Your task to perform on an android device: turn on translation in the chrome app Image 0: 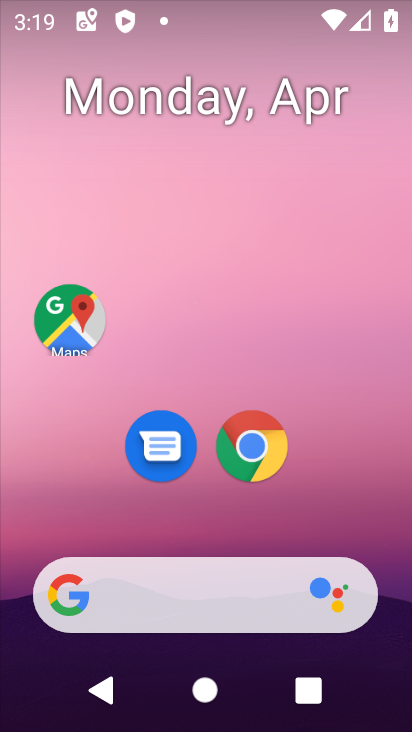
Step 0: drag from (384, 589) to (284, 43)
Your task to perform on an android device: turn on translation in the chrome app Image 1: 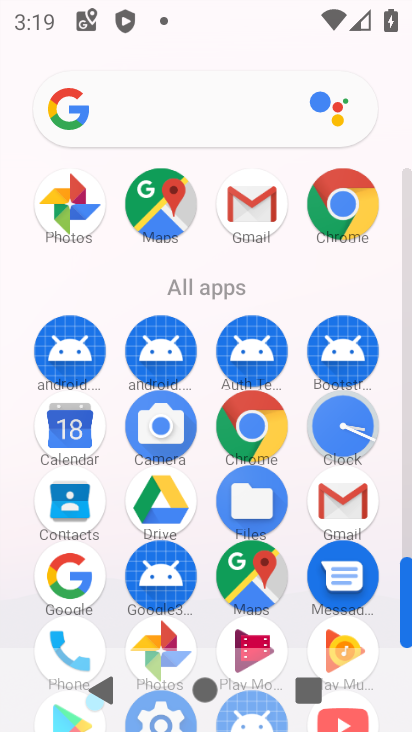
Step 1: click (247, 423)
Your task to perform on an android device: turn on translation in the chrome app Image 2: 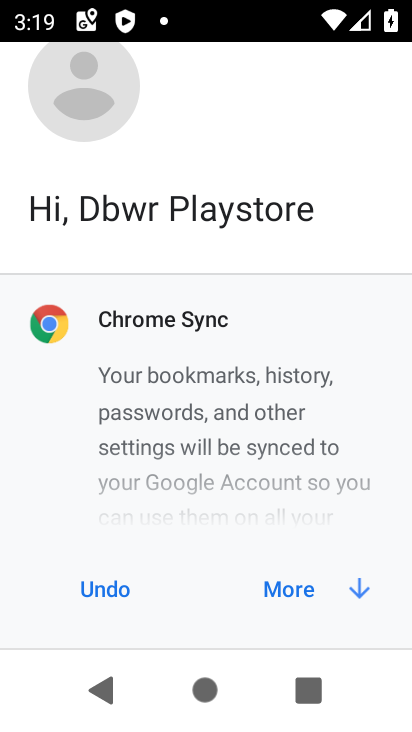
Step 2: click (302, 591)
Your task to perform on an android device: turn on translation in the chrome app Image 3: 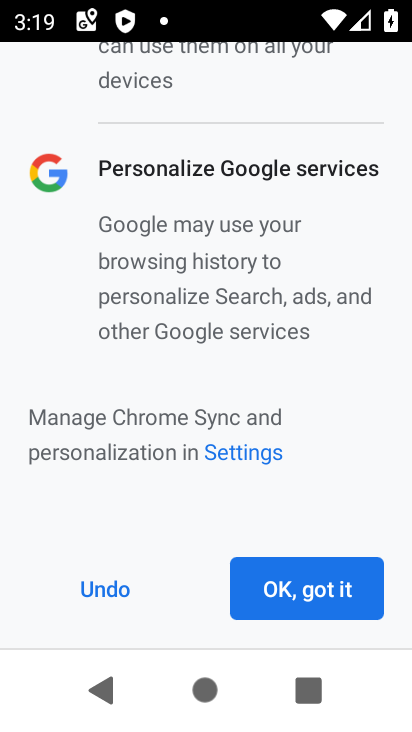
Step 3: click (302, 591)
Your task to perform on an android device: turn on translation in the chrome app Image 4: 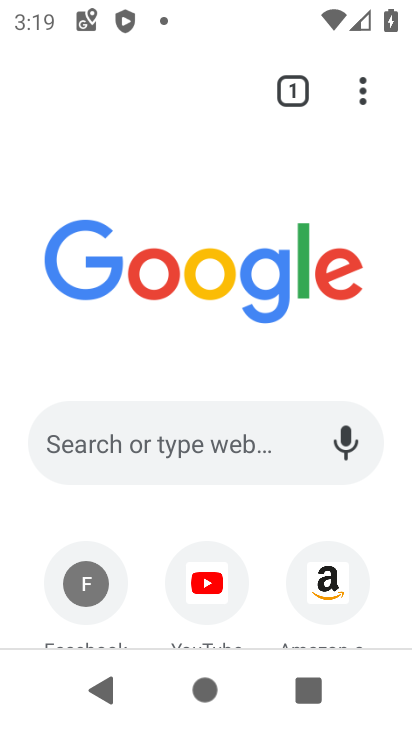
Step 4: drag from (360, 90) to (263, 490)
Your task to perform on an android device: turn on translation in the chrome app Image 5: 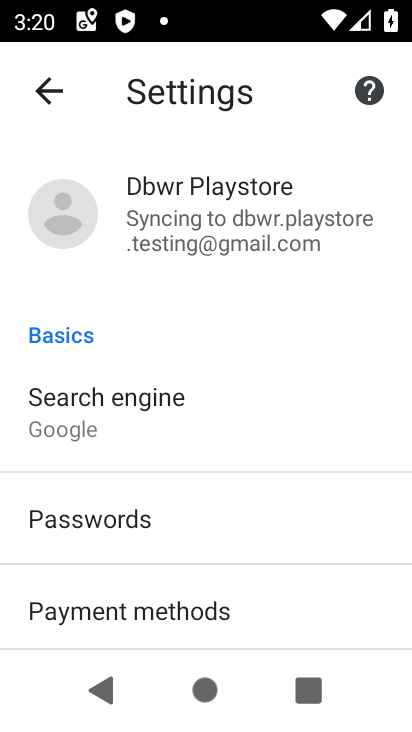
Step 5: drag from (275, 579) to (279, 92)
Your task to perform on an android device: turn on translation in the chrome app Image 6: 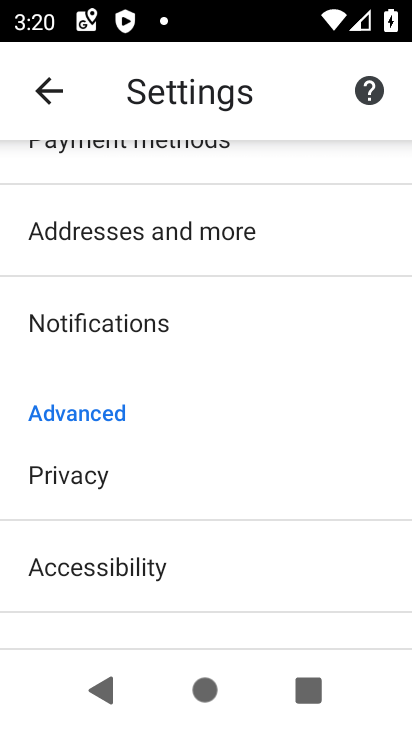
Step 6: drag from (271, 495) to (256, 168)
Your task to perform on an android device: turn on translation in the chrome app Image 7: 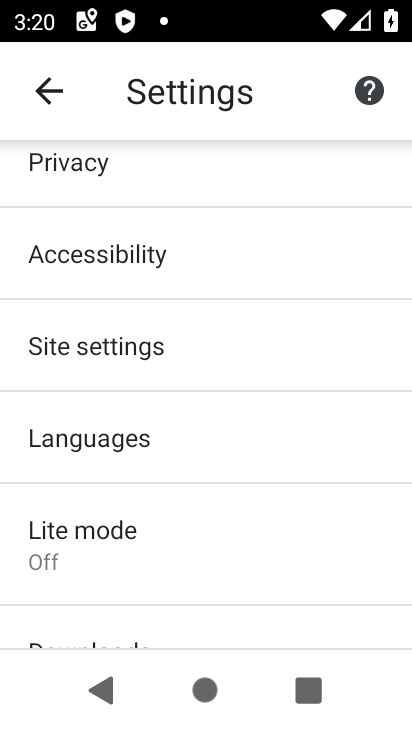
Step 7: click (167, 436)
Your task to perform on an android device: turn on translation in the chrome app Image 8: 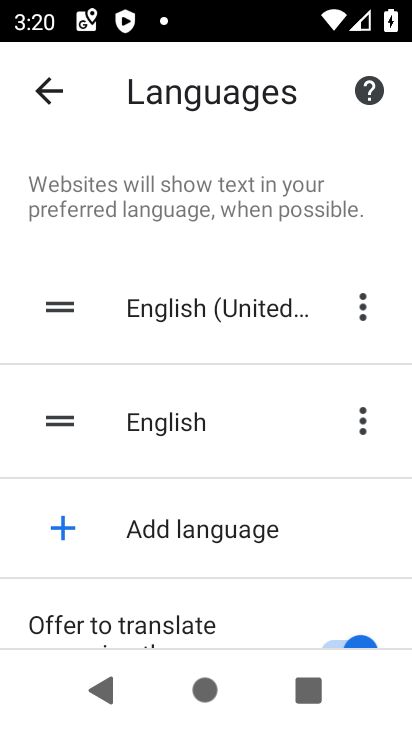
Step 8: task complete